Your task to perform on an android device: change your default location settings in chrome Image 0: 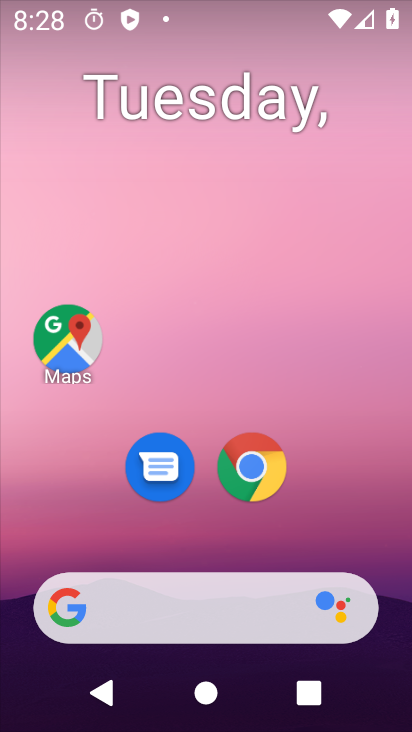
Step 0: drag from (387, 535) to (291, 165)
Your task to perform on an android device: change your default location settings in chrome Image 1: 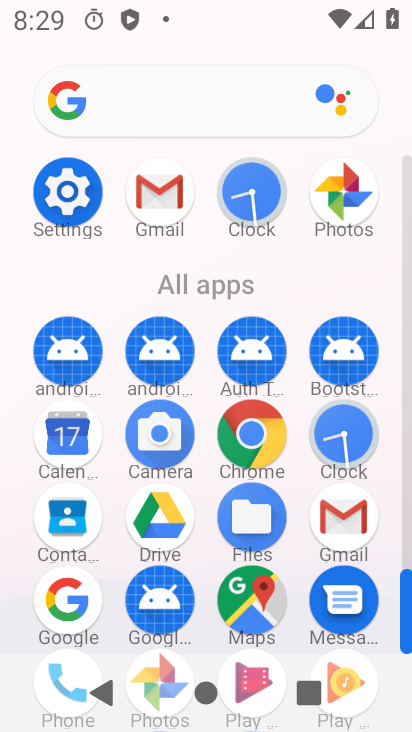
Step 1: click (250, 422)
Your task to perform on an android device: change your default location settings in chrome Image 2: 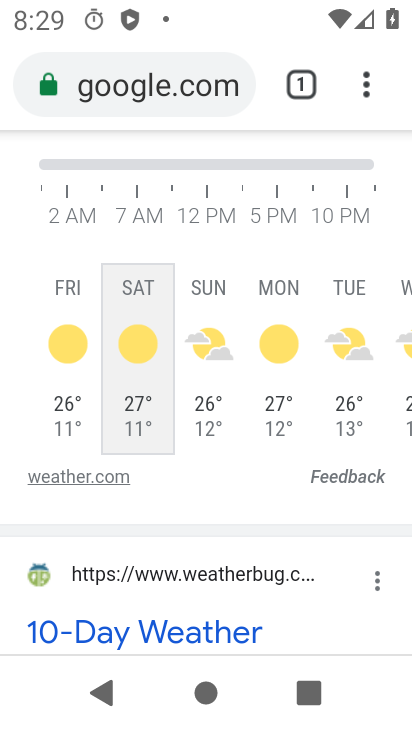
Step 2: click (369, 103)
Your task to perform on an android device: change your default location settings in chrome Image 3: 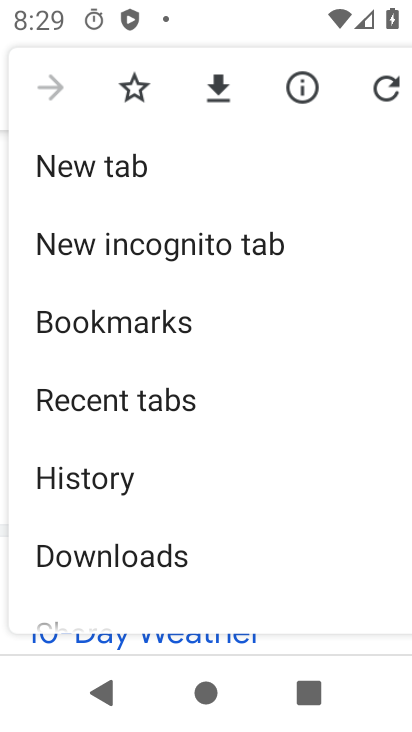
Step 3: drag from (282, 588) to (269, 263)
Your task to perform on an android device: change your default location settings in chrome Image 4: 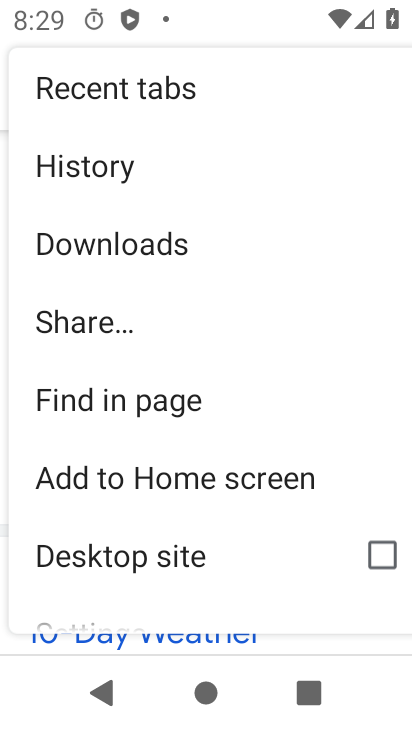
Step 4: drag from (291, 565) to (265, 333)
Your task to perform on an android device: change your default location settings in chrome Image 5: 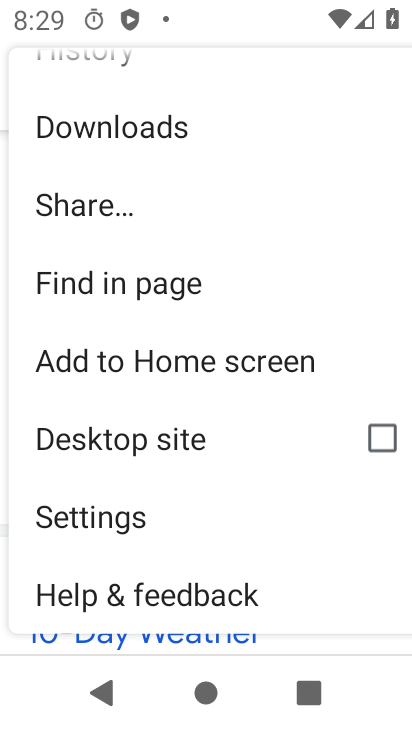
Step 5: click (252, 537)
Your task to perform on an android device: change your default location settings in chrome Image 6: 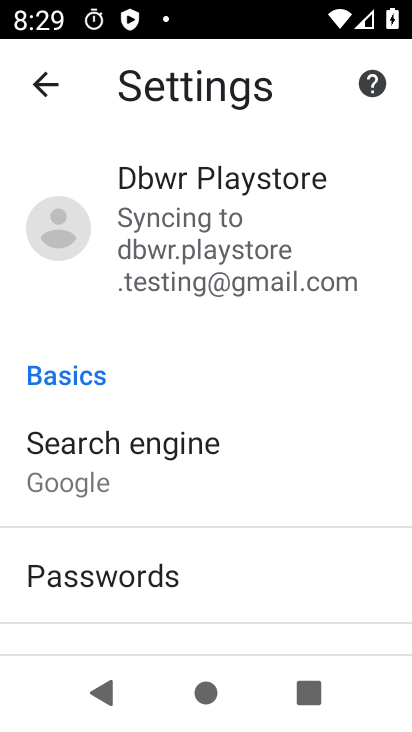
Step 6: drag from (295, 617) to (238, 240)
Your task to perform on an android device: change your default location settings in chrome Image 7: 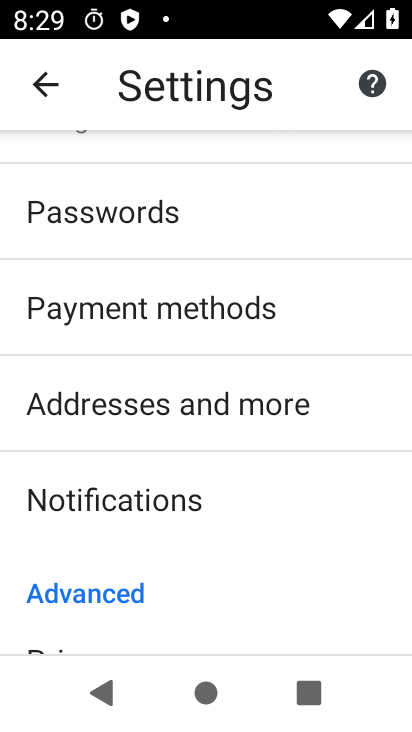
Step 7: drag from (292, 602) to (275, 119)
Your task to perform on an android device: change your default location settings in chrome Image 8: 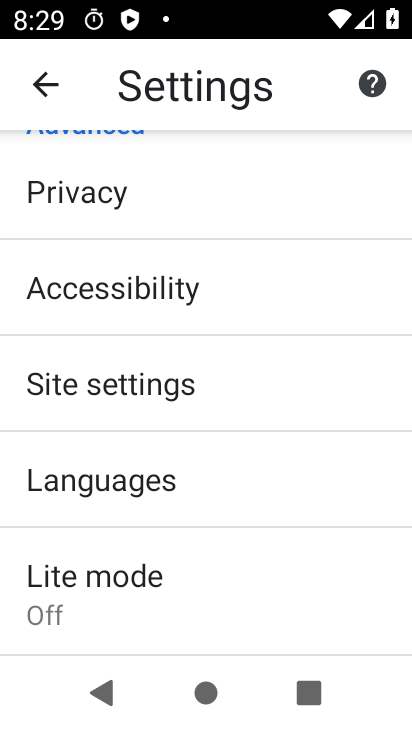
Step 8: click (287, 380)
Your task to perform on an android device: change your default location settings in chrome Image 9: 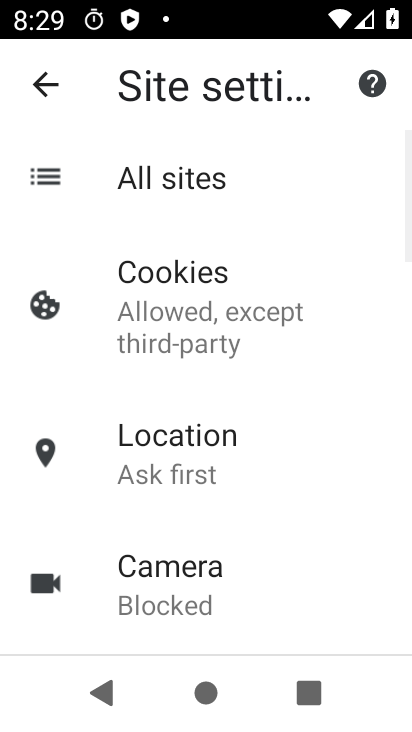
Step 9: drag from (312, 614) to (273, 250)
Your task to perform on an android device: change your default location settings in chrome Image 10: 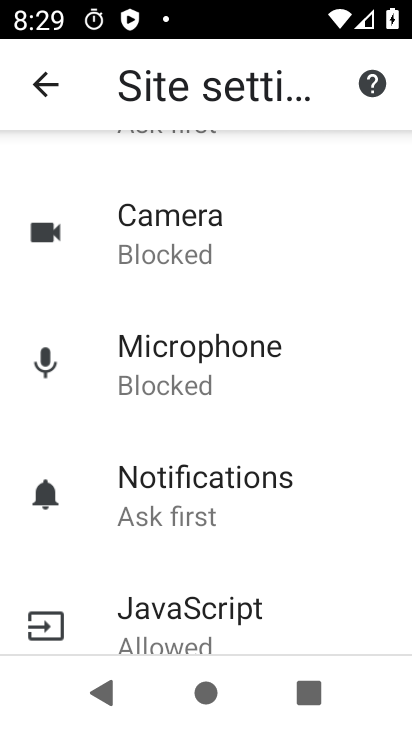
Step 10: drag from (315, 640) to (267, 347)
Your task to perform on an android device: change your default location settings in chrome Image 11: 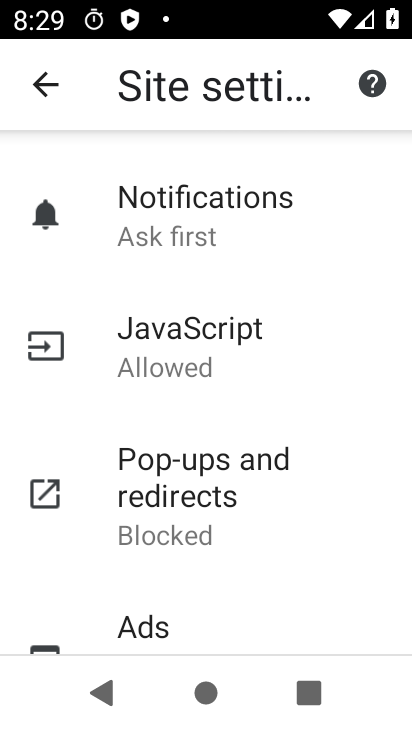
Step 11: drag from (318, 278) to (257, 657)
Your task to perform on an android device: change your default location settings in chrome Image 12: 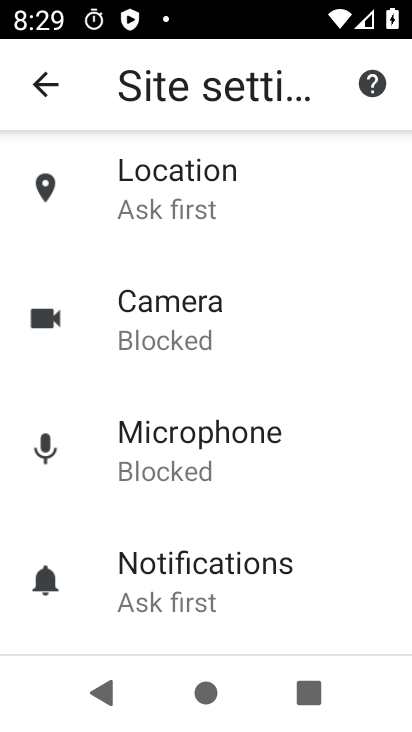
Step 12: click (233, 207)
Your task to perform on an android device: change your default location settings in chrome Image 13: 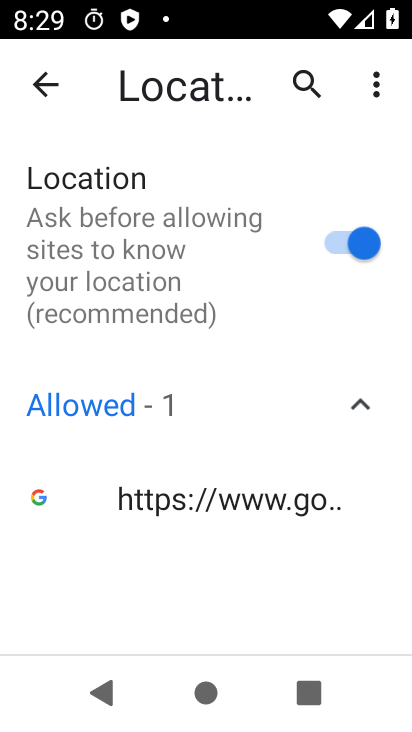
Step 13: task complete